Your task to perform on an android device: Show me the alarms in the clock app Image 0: 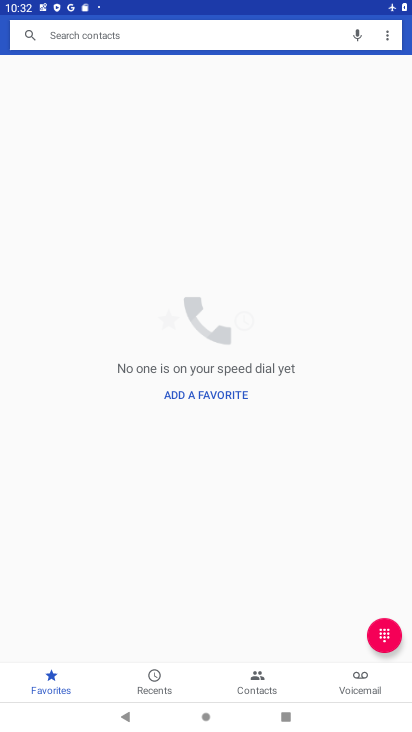
Step 0: press home button
Your task to perform on an android device: Show me the alarms in the clock app Image 1: 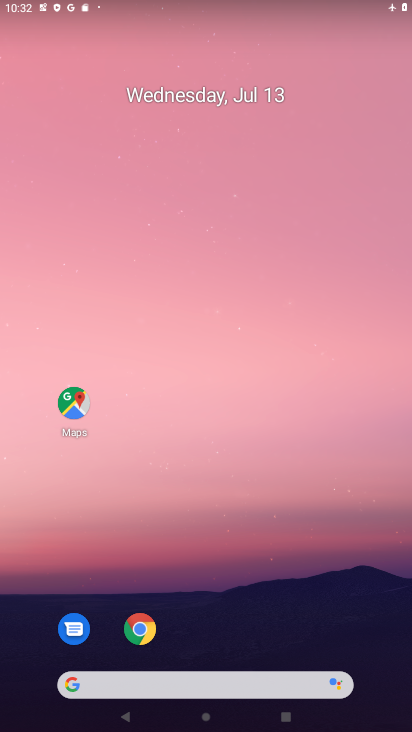
Step 1: drag from (253, 635) to (298, 92)
Your task to perform on an android device: Show me the alarms in the clock app Image 2: 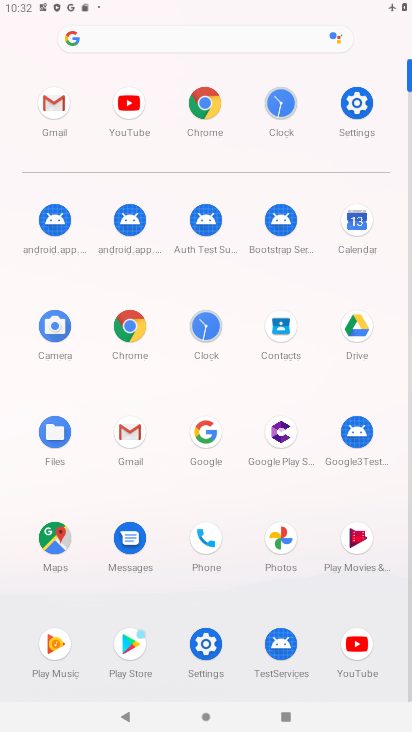
Step 2: click (269, 105)
Your task to perform on an android device: Show me the alarms in the clock app Image 3: 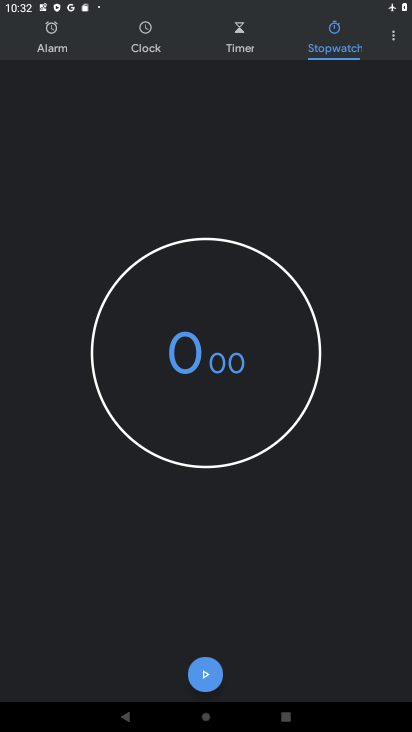
Step 3: click (65, 56)
Your task to perform on an android device: Show me the alarms in the clock app Image 4: 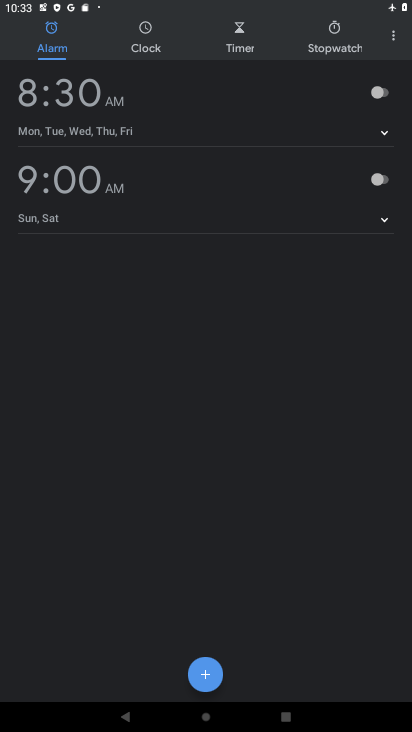
Step 4: click (385, 90)
Your task to perform on an android device: Show me the alarms in the clock app Image 5: 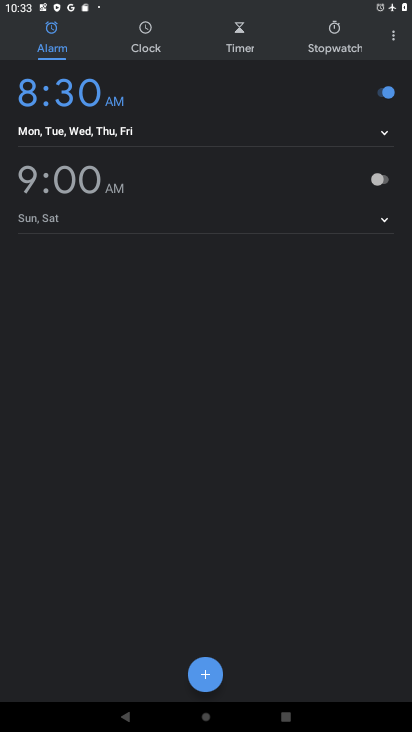
Step 5: task complete